Your task to perform on an android device: Open calendar and show me the first week of next month Image 0: 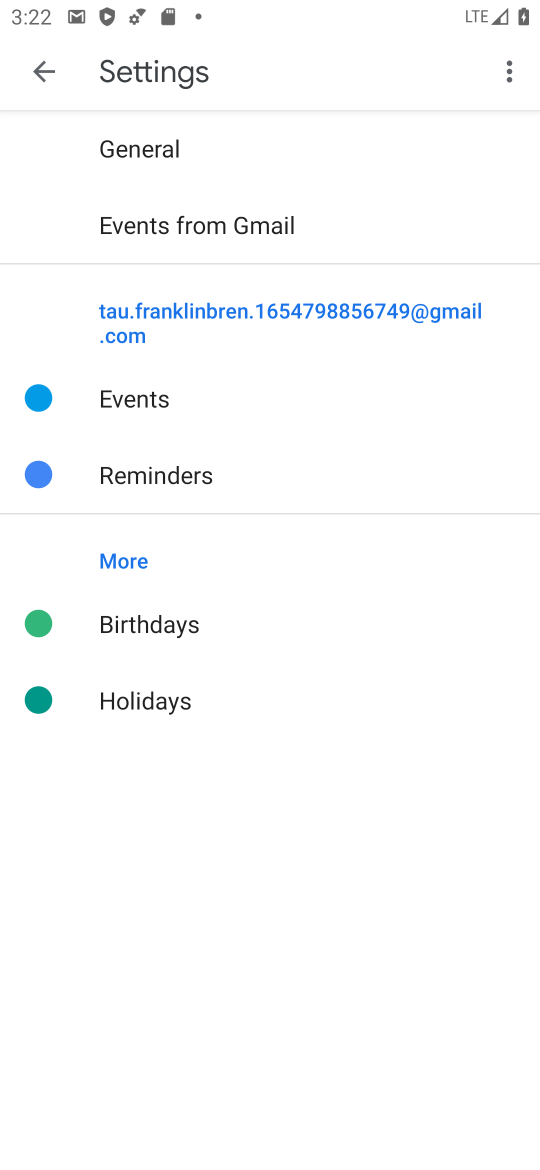
Step 0: press home button
Your task to perform on an android device: Open calendar and show me the first week of next month Image 1: 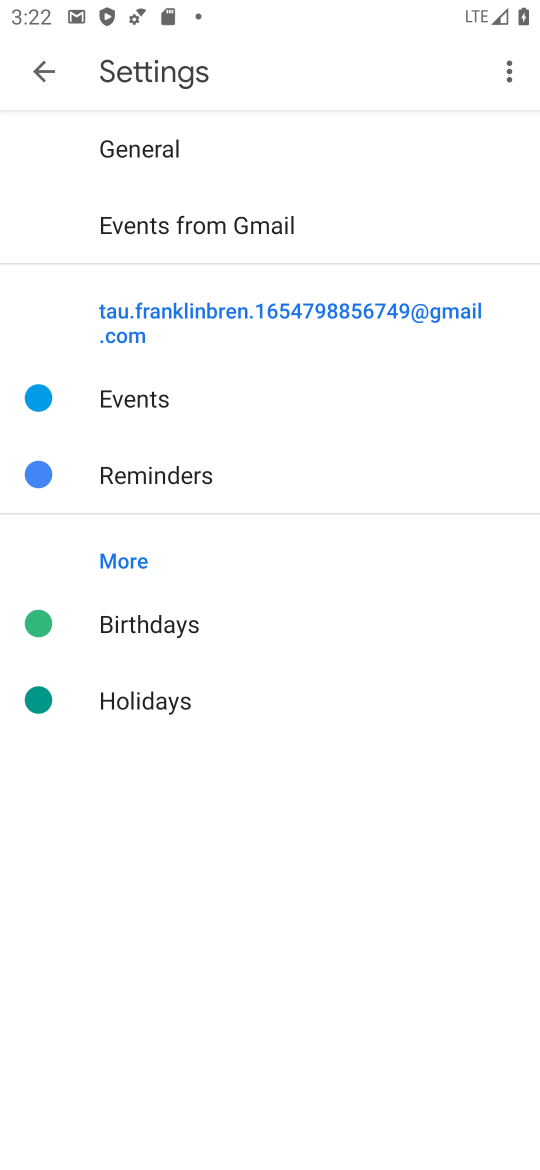
Step 1: press home button
Your task to perform on an android device: Open calendar and show me the first week of next month Image 2: 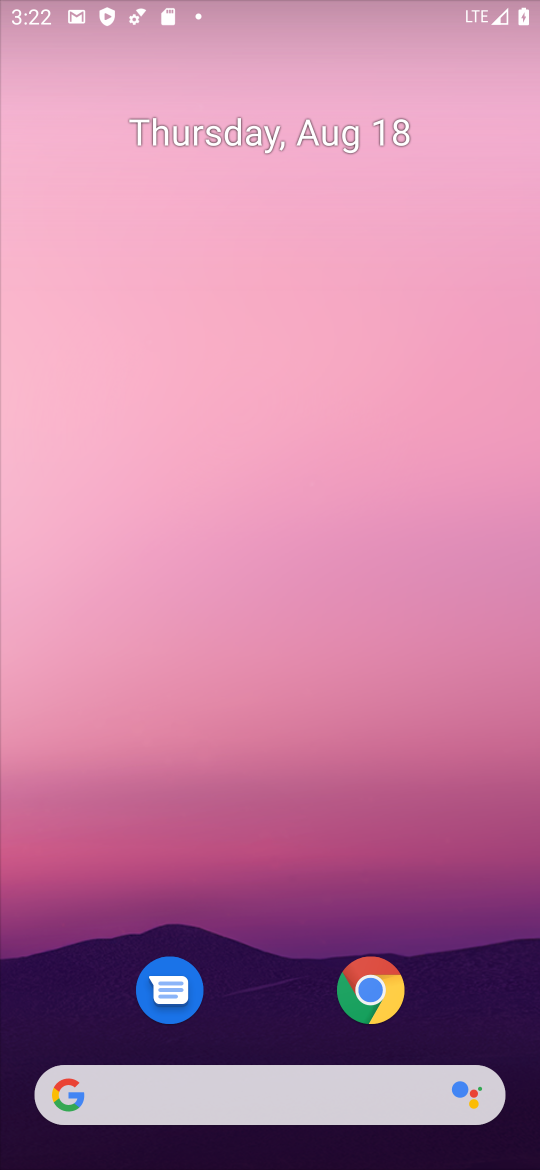
Step 2: press home button
Your task to perform on an android device: Open calendar and show me the first week of next month Image 3: 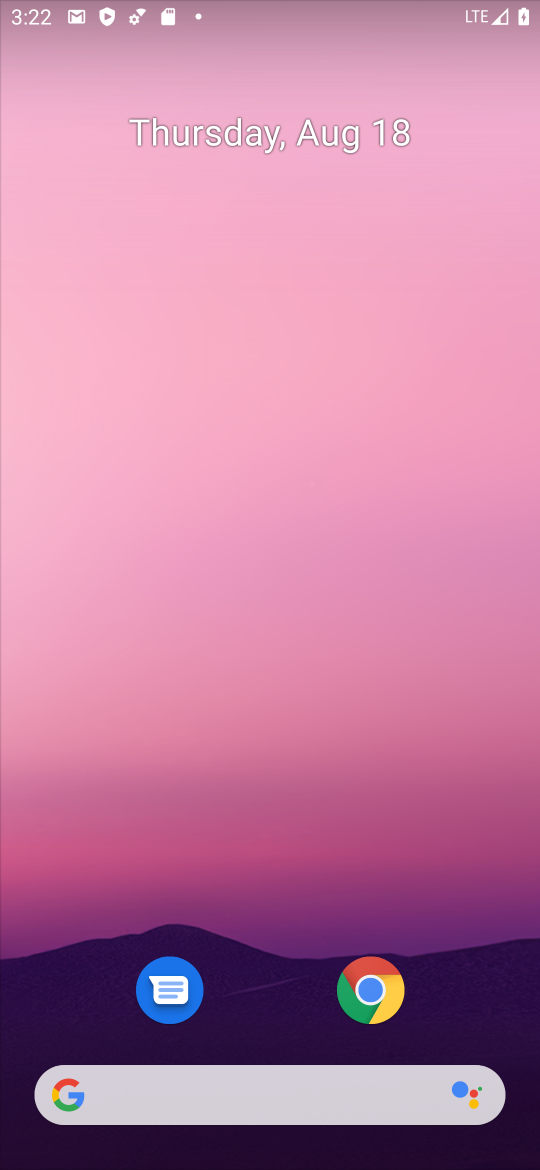
Step 3: drag from (302, 615) to (443, 125)
Your task to perform on an android device: Open calendar and show me the first week of next month Image 4: 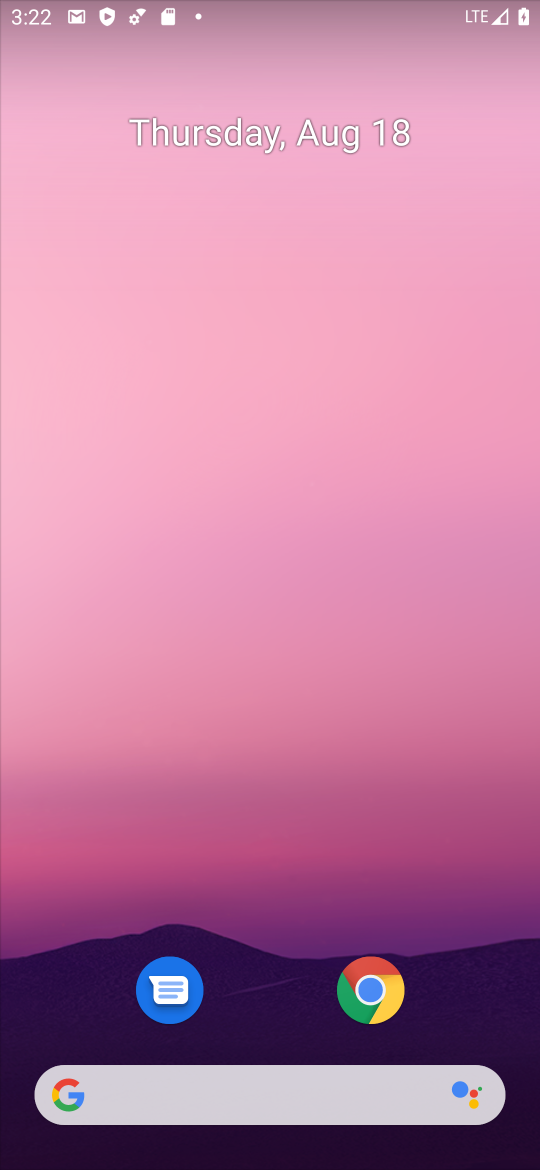
Step 4: drag from (246, 894) to (354, 134)
Your task to perform on an android device: Open calendar and show me the first week of next month Image 5: 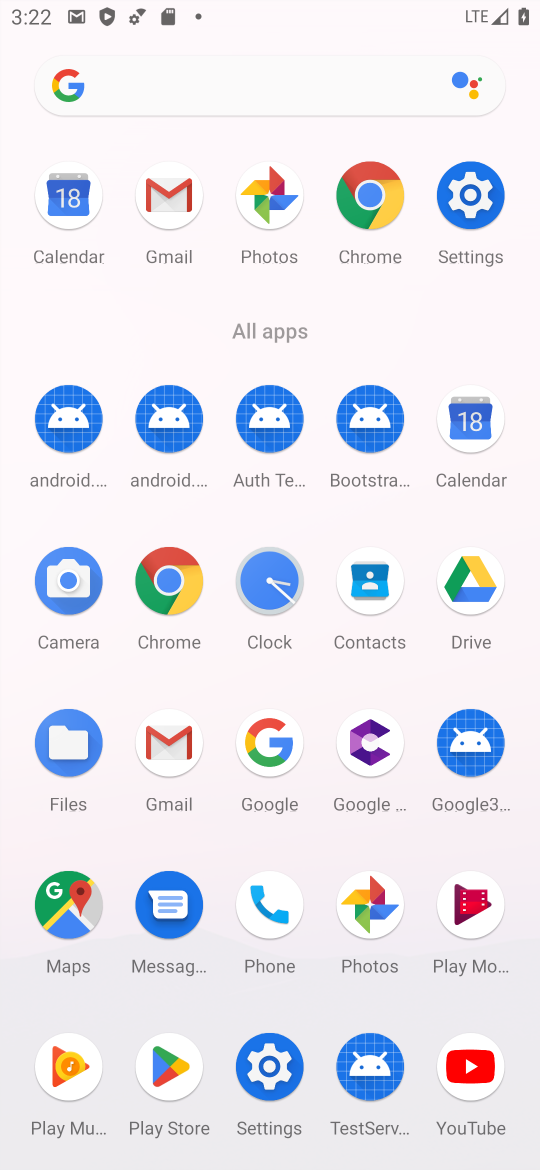
Step 5: click (459, 415)
Your task to perform on an android device: Open calendar and show me the first week of next month Image 6: 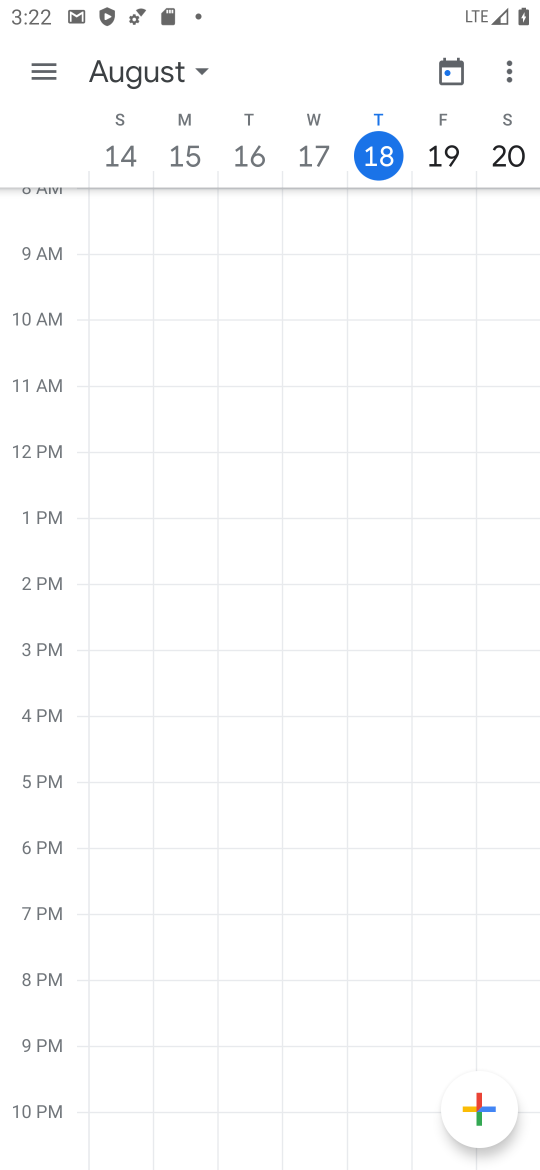
Step 6: click (176, 74)
Your task to perform on an android device: Open calendar and show me the first week of next month Image 7: 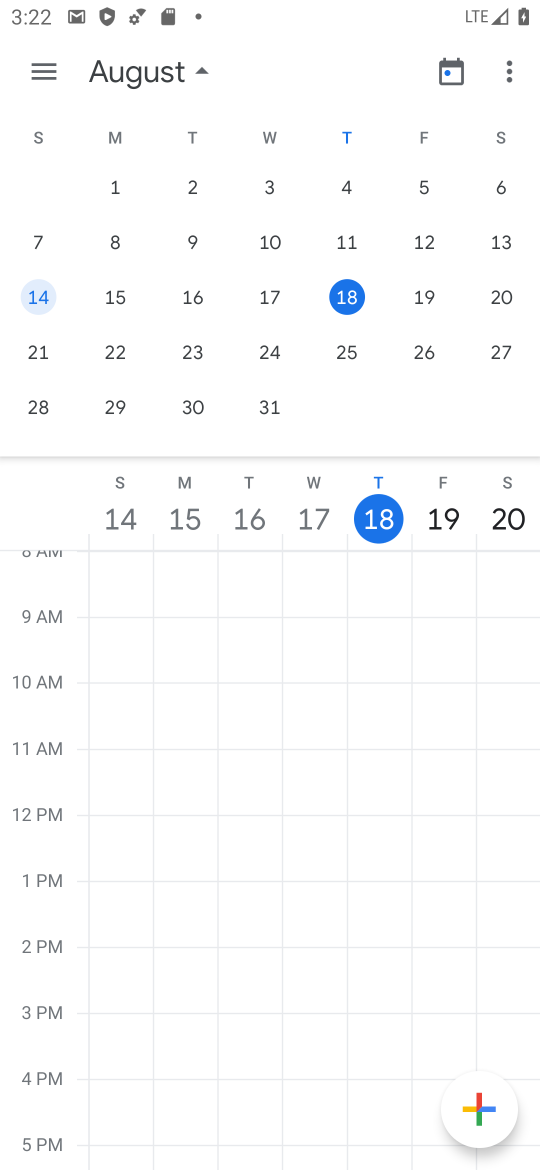
Step 7: drag from (497, 342) to (115, 277)
Your task to perform on an android device: Open calendar and show me the first week of next month Image 8: 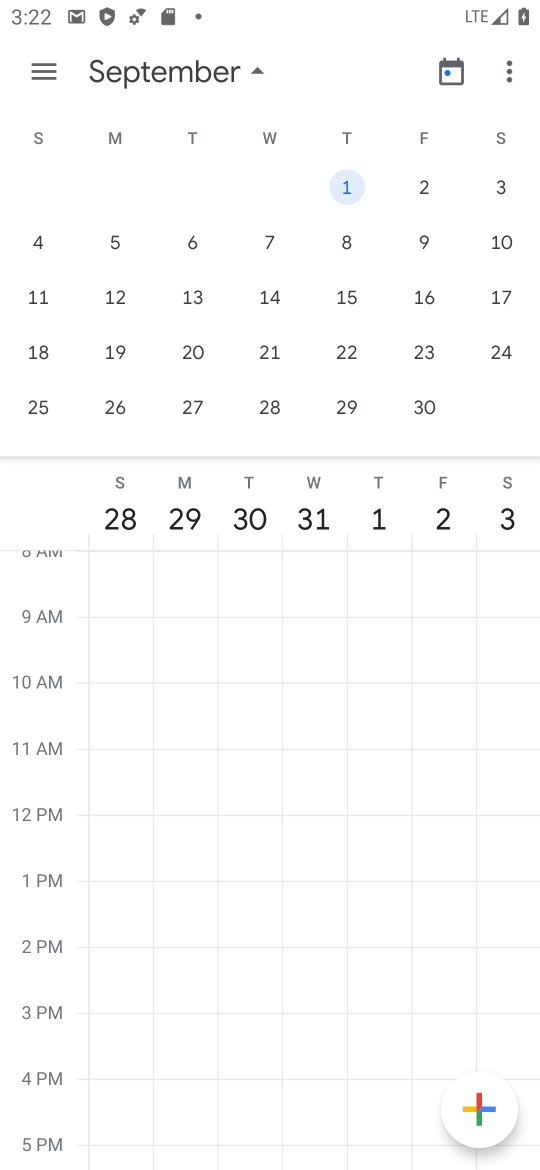
Step 8: click (197, 248)
Your task to perform on an android device: Open calendar and show me the first week of next month Image 9: 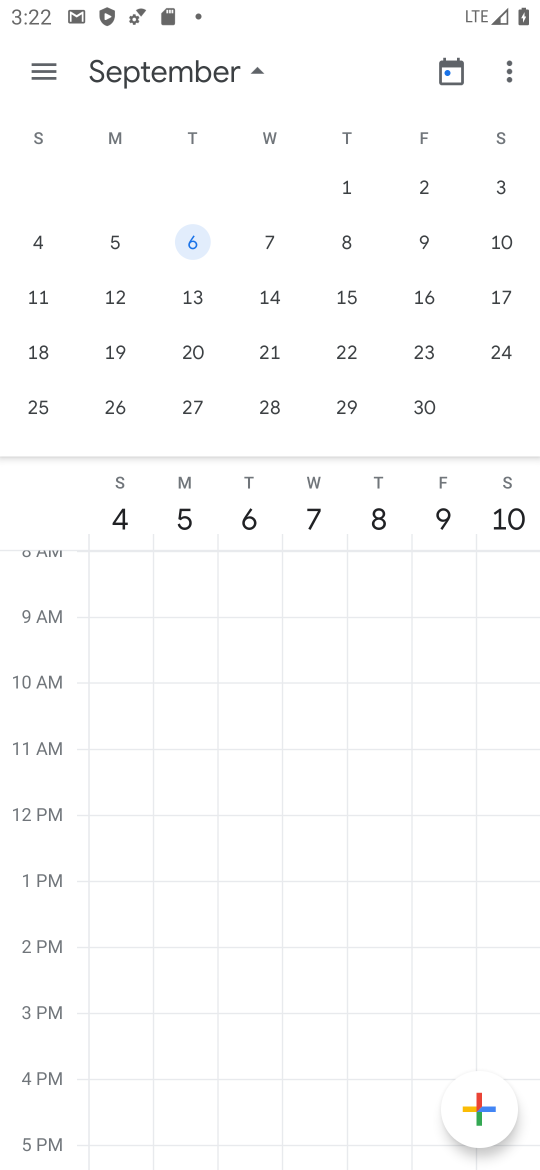
Step 9: task complete